Your task to perform on an android device: add a label to a message in the gmail app Image 0: 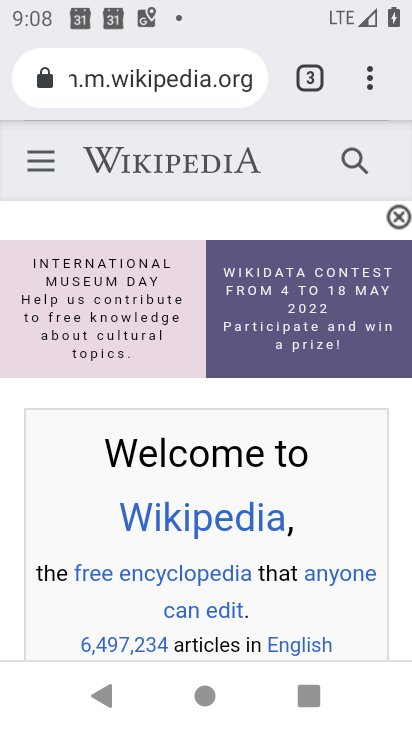
Step 0: press home button
Your task to perform on an android device: add a label to a message in the gmail app Image 1: 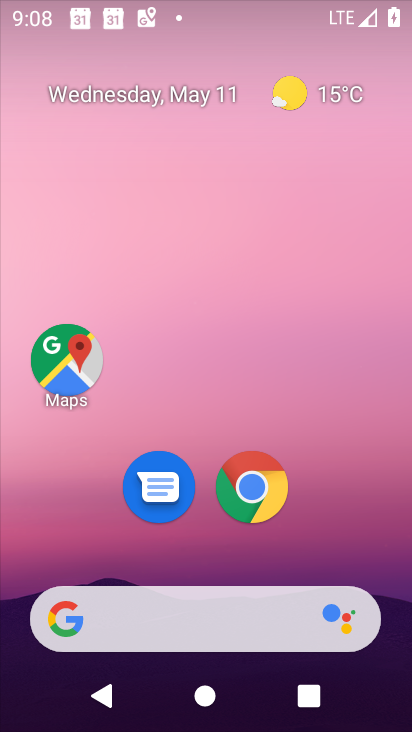
Step 1: drag from (231, 615) to (321, 149)
Your task to perform on an android device: add a label to a message in the gmail app Image 2: 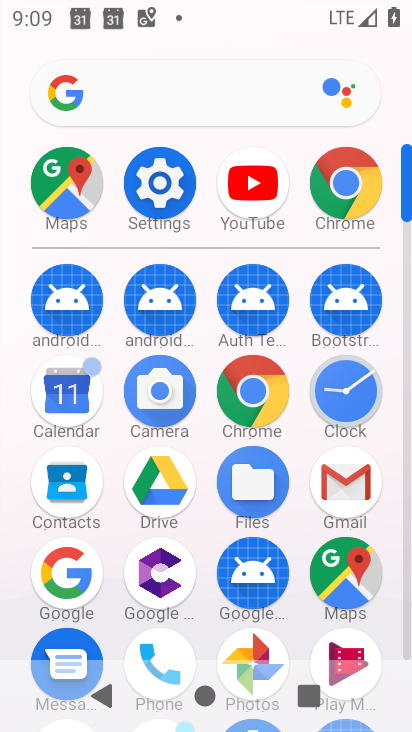
Step 2: click (357, 493)
Your task to perform on an android device: add a label to a message in the gmail app Image 3: 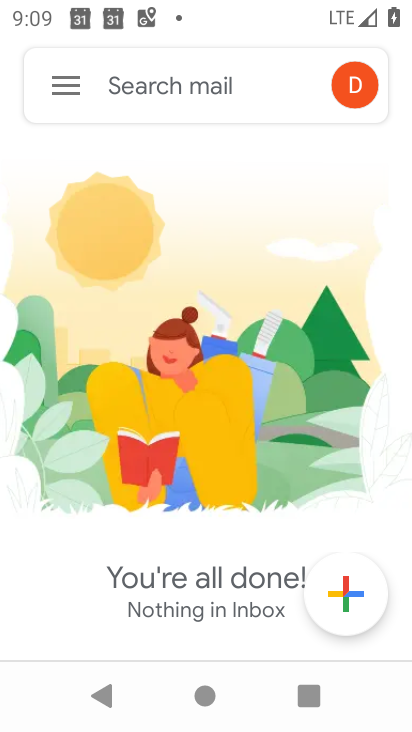
Step 3: click (51, 70)
Your task to perform on an android device: add a label to a message in the gmail app Image 4: 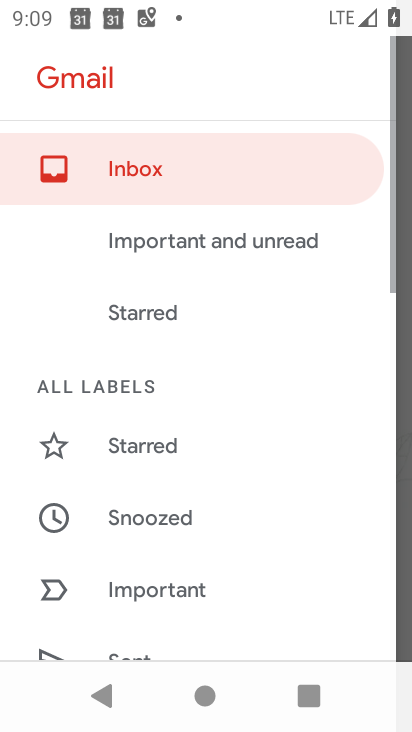
Step 4: drag from (153, 576) to (222, 250)
Your task to perform on an android device: add a label to a message in the gmail app Image 5: 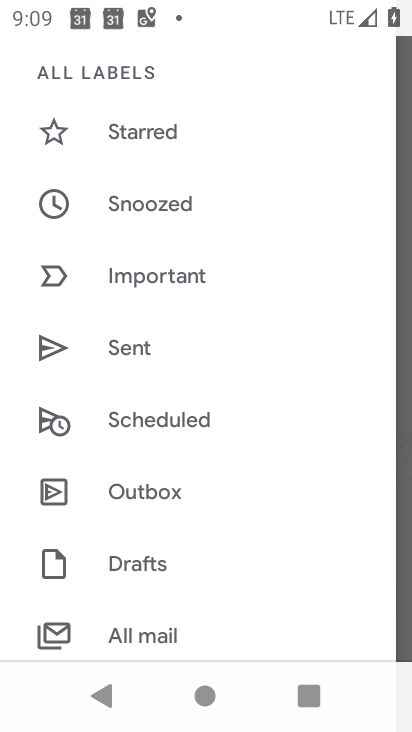
Step 5: drag from (164, 524) to (225, 257)
Your task to perform on an android device: add a label to a message in the gmail app Image 6: 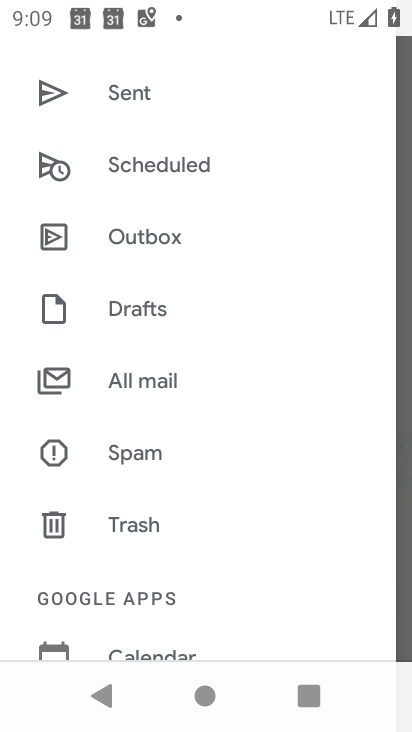
Step 6: drag from (179, 593) to (223, 332)
Your task to perform on an android device: add a label to a message in the gmail app Image 7: 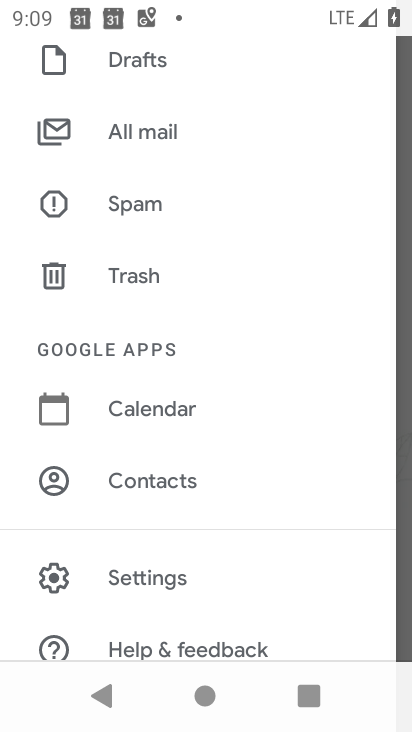
Step 7: click (143, 584)
Your task to perform on an android device: add a label to a message in the gmail app Image 8: 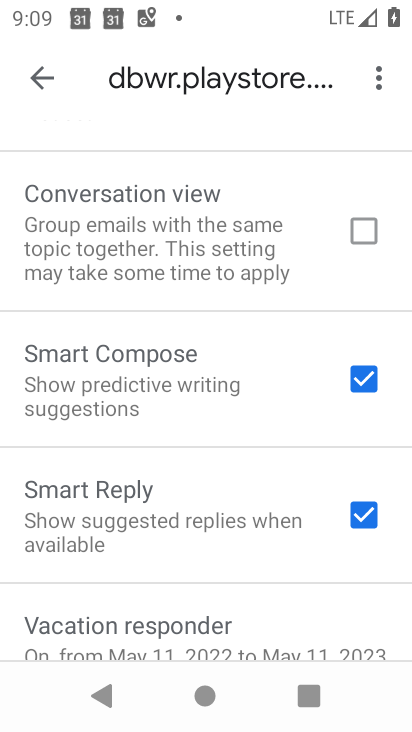
Step 8: drag from (109, 288) to (163, 599)
Your task to perform on an android device: add a label to a message in the gmail app Image 9: 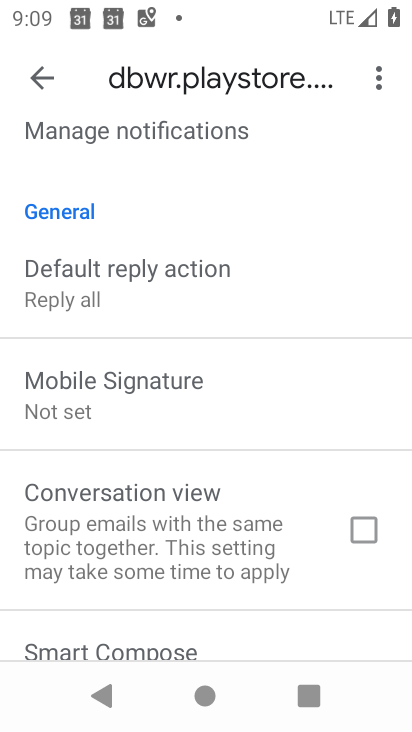
Step 9: drag from (146, 287) to (180, 469)
Your task to perform on an android device: add a label to a message in the gmail app Image 10: 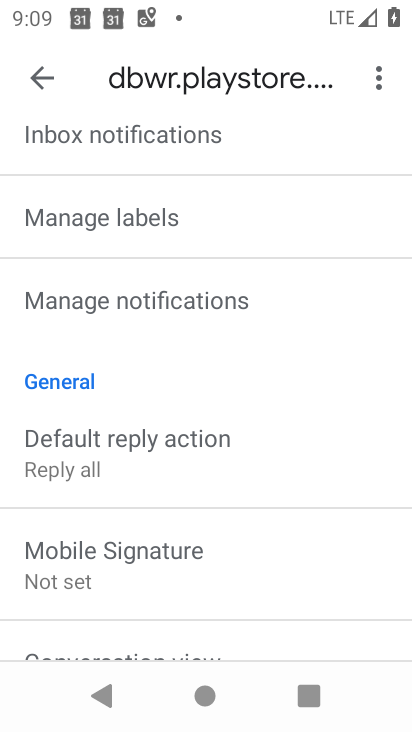
Step 10: click (171, 231)
Your task to perform on an android device: add a label to a message in the gmail app Image 11: 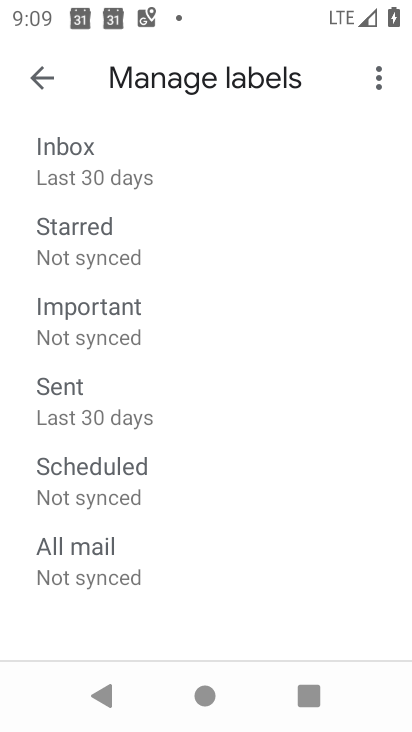
Step 11: click (186, 321)
Your task to perform on an android device: add a label to a message in the gmail app Image 12: 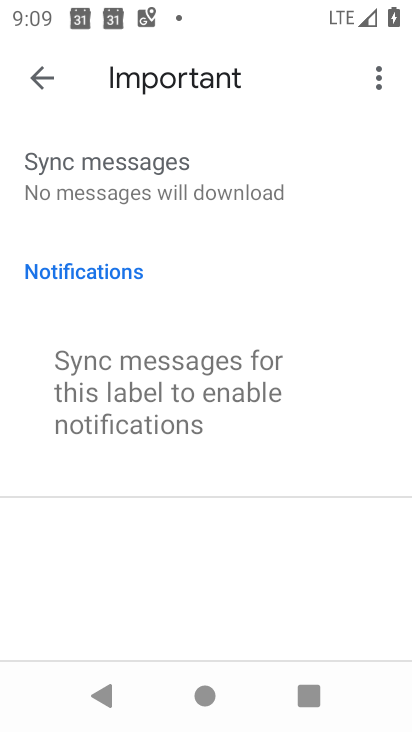
Step 12: task complete